Your task to perform on an android device: clear all cookies in the chrome app Image 0: 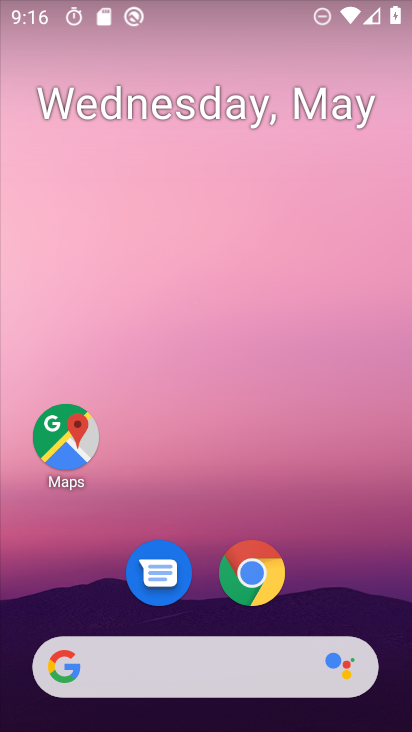
Step 0: click (251, 570)
Your task to perform on an android device: clear all cookies in the chrome app Image 1: 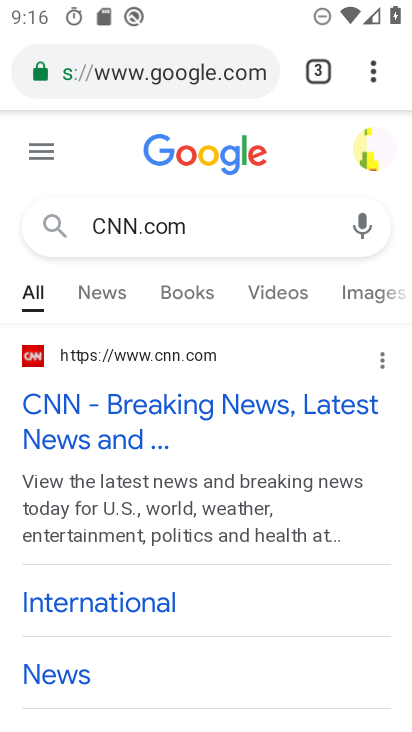
Step 1: click (368, 74)
Your task to perform on an android device: clear all cookies in the chrome app Image 2: 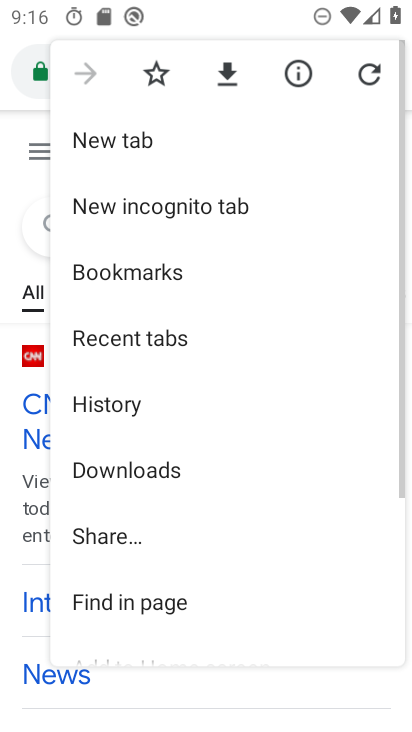
Step 2: click (103, 402)
Your task to perform on an android device: clear all cookies in the chrome app Image 3: 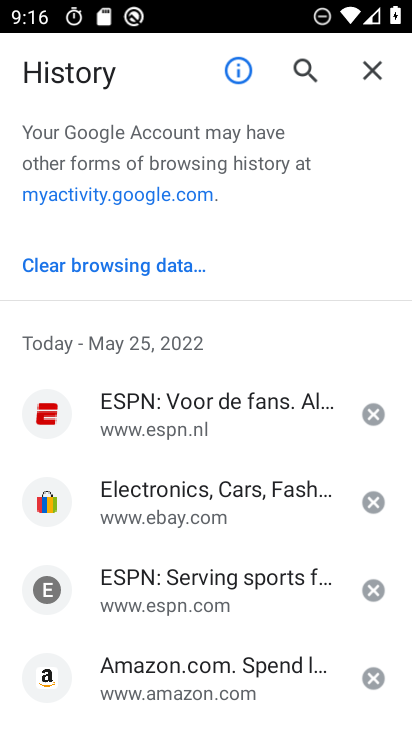
Step 3: click (136, 267)
Your task to perform on an android device: clear all cookies in the chrome app Image 4: 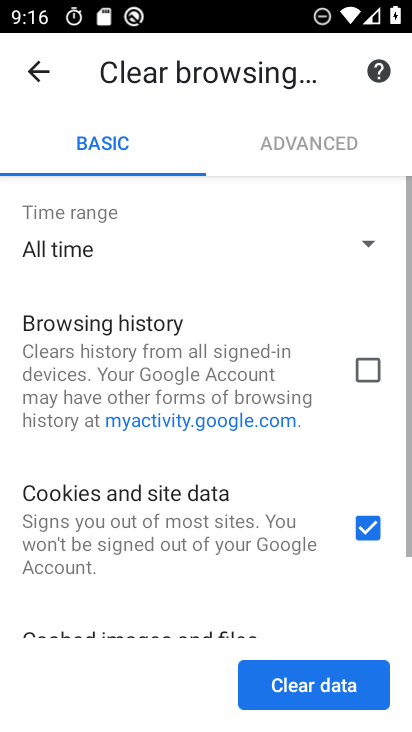
Step 4: click (286, 682)
Your task to perform on an android device: clear all cookies in the chrome app Image 5: 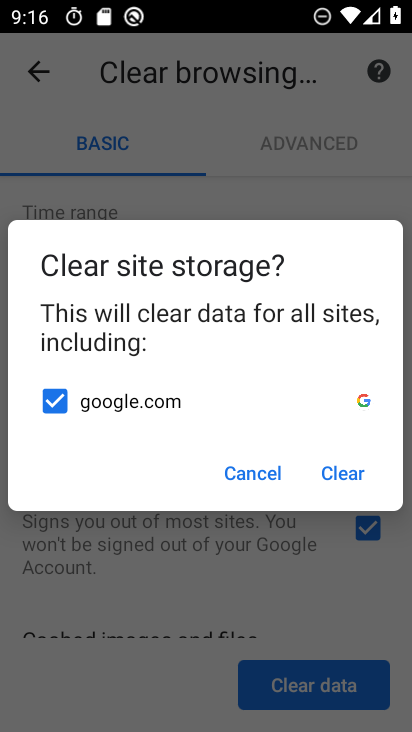
Step 5: click (321, 470)
Your task to perform on an android device: clear all cookies in the chrome app Image 6: 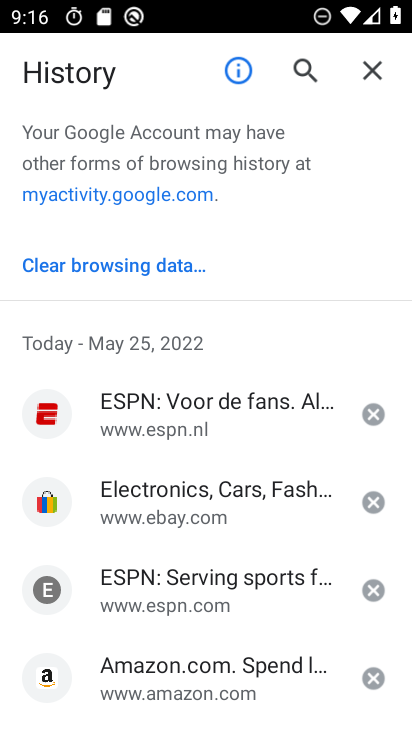
Step 6: click (115, 264)
Your task to perform on an android device: clear all cookies in the chrome app Image 7: 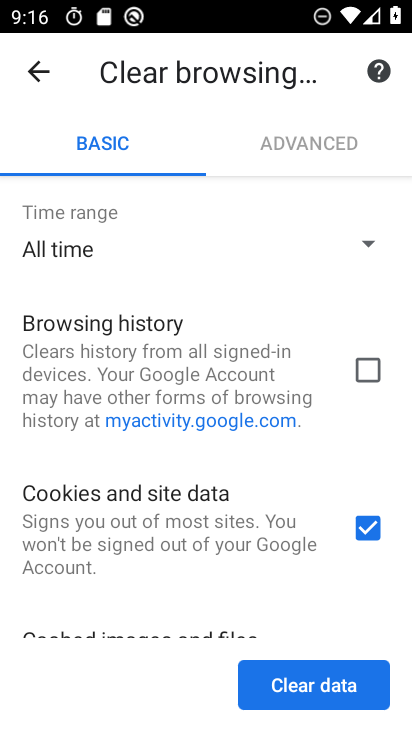
Step 7: click (371, 372)
Your task to perform on an android device: clear all cookies in the chrome app Image 8: 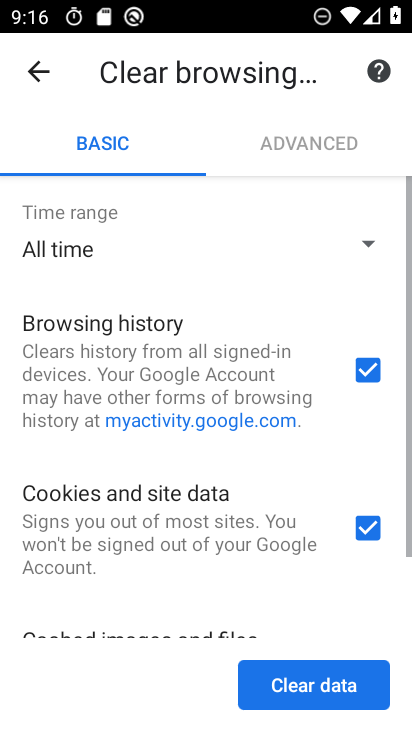
Step 8: drag from (187, 571) to (205, 322)
Your task to perform on an android device: clear all cookies in the chrome app Image 9: 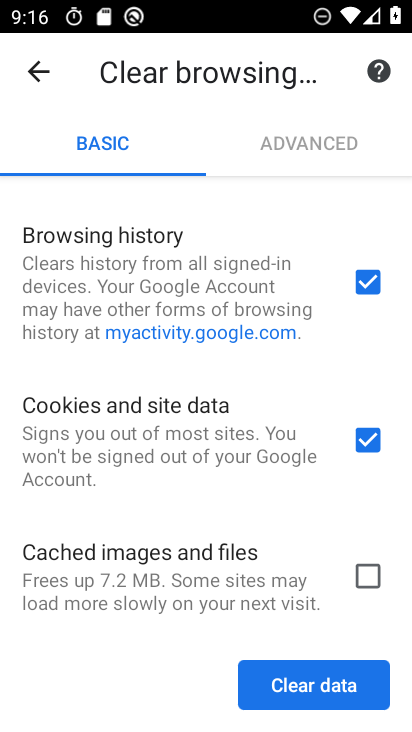
Step 9: click (351, 574)
Your task to perform on an android device: clear all cookies in the chrome app Image 10: 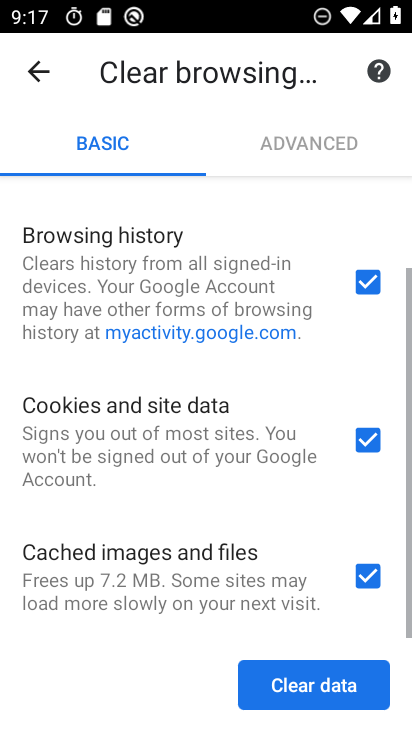
Step 10: click (328, 684)
Your task to perform on an android device: clear all cookies in the chrome app Image 11: 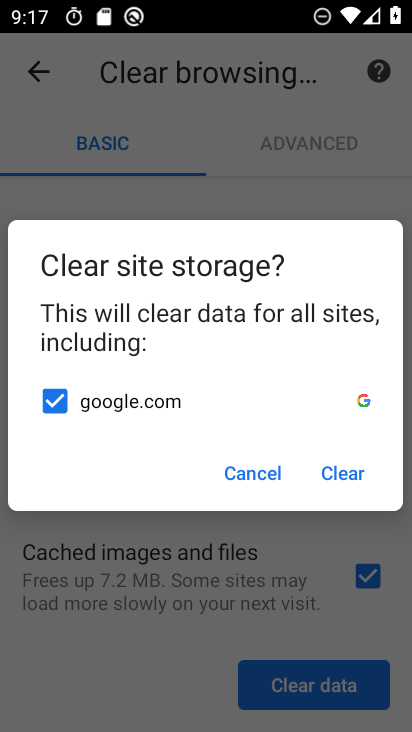
Step 11: click (332, 471)
Your task to perform on an android device: clear all cookies in the chrome app Image 12: 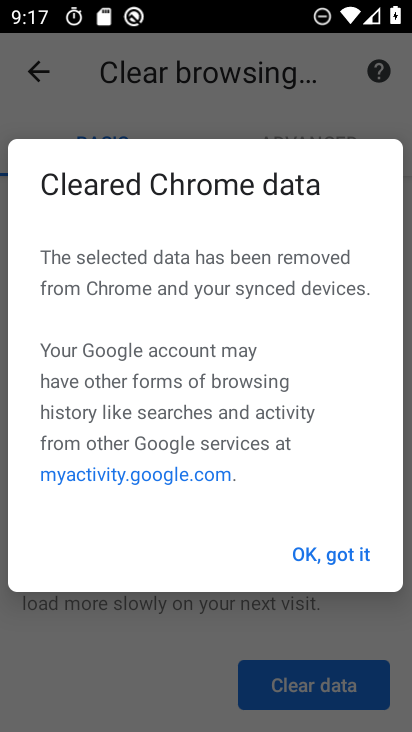
Step 12: click (339, 560)
Your task to perform on an android device: clear all cookies in the chrome app Image 13: 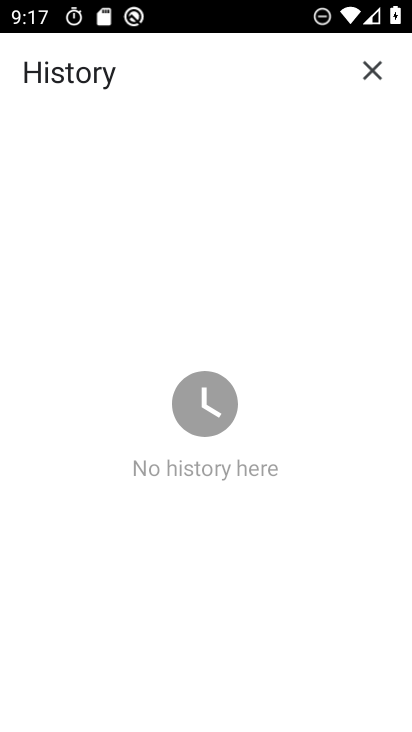
Step 13: task complete